Your task to perform on an android device: Turn off the flashlight Image 0: 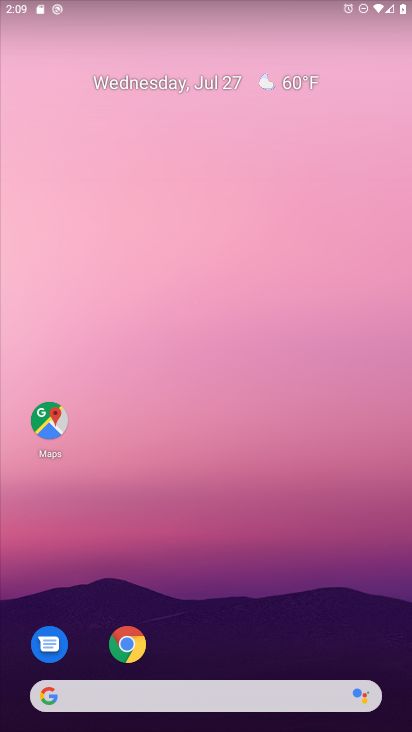
Step 0: drag from (211, 614) to (197, 259)
Your task to perform on an android device: Turn off the flashlight Image 1: 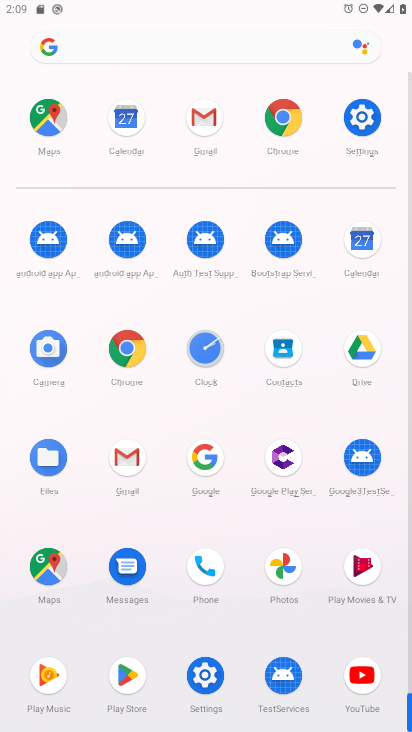
Step 1: click (355, 126)
Your task to perform on an android device: Turn off the flashlight Image 2: 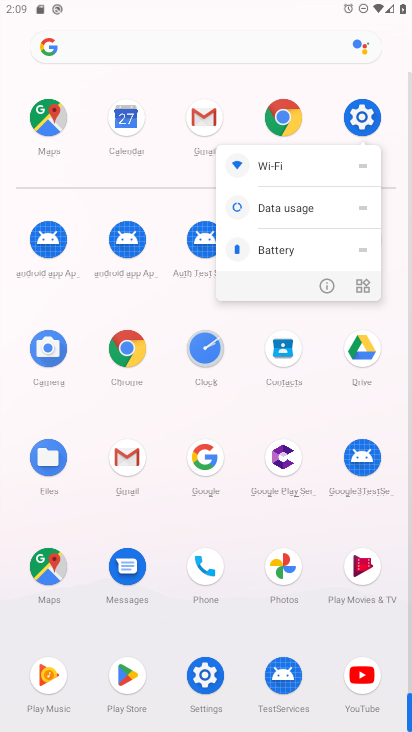
Step 2: click (337, 277)
Your task to perform on an android device: Turn off the flashlight Image 3: 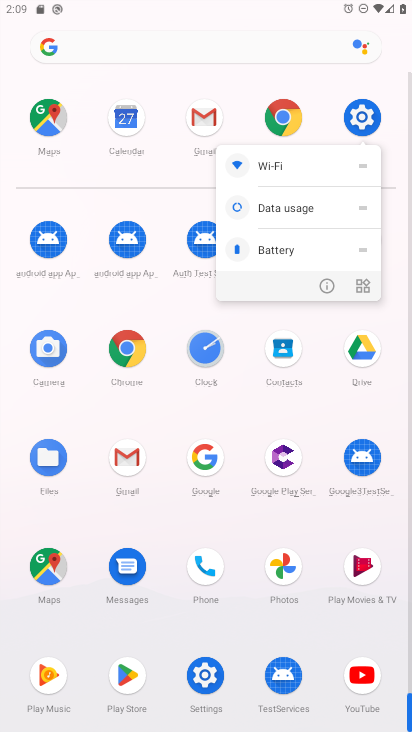
Step 3: click (341, 285)
Your task to perform on an android device: Turn off the flashlight Image 4: 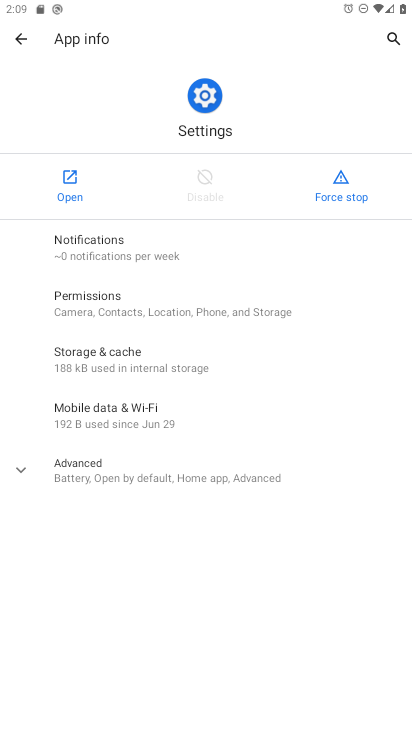
Step 4: click (65, 182)
Your task to perform on an android device: Turn off the flashlight Image 5: 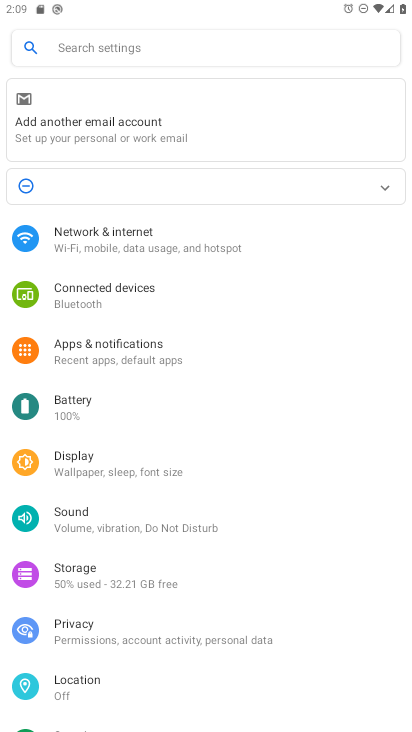
Step 5: click (114, 43)
Your task to perform on an android device: Turn off the flashlight Image 6: 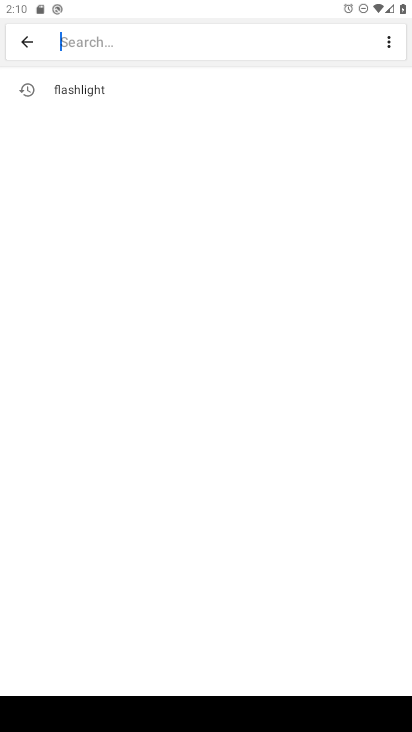
Step 6: type "flashlight"
Your task to perform on an android device: Turn off the flashlight Image 7: 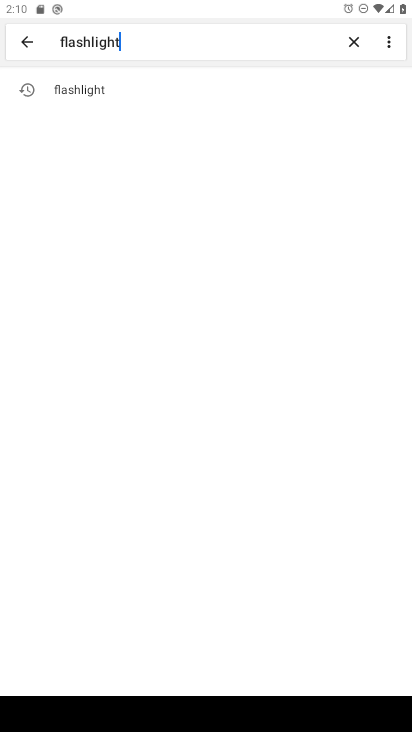
Step 7: type ""
Your task to perform on an android device: Turn off the flashlight Image 8: 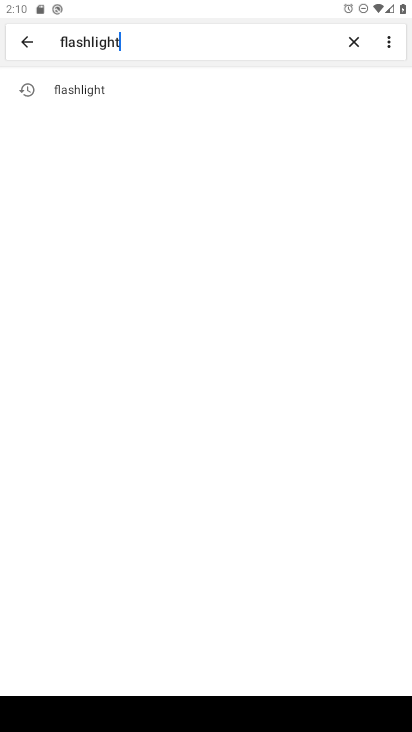
Step 8: click (114, 89)
Your task to perform on an android device: Turn off the flashlight Image 9: 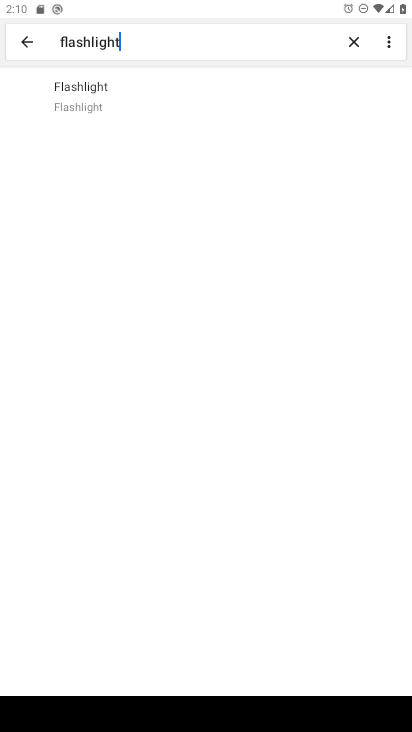
Step 9: task complete